Your task to perform on an android device: Go to settings Image 0: 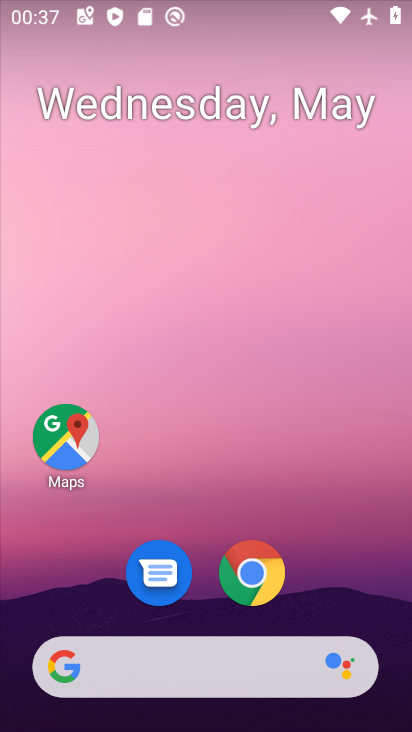
Step 0: drag from (344, 567) to (306, 186)
Your task to perform on an android device: Go to settings Image 1: 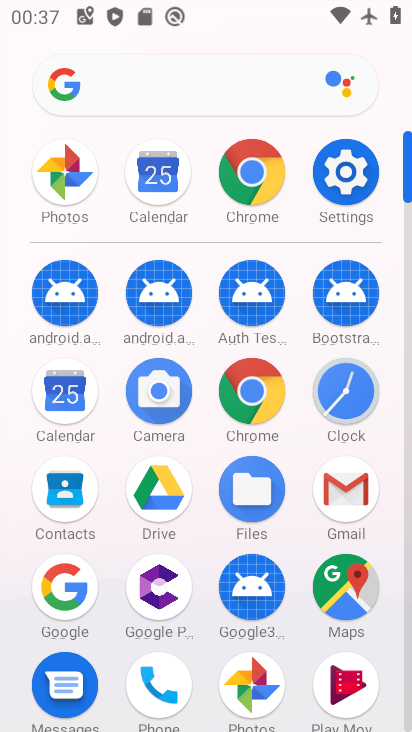
Step 1: click (343, 163)
Your task to perform on an android device: Go to settings Image 2: 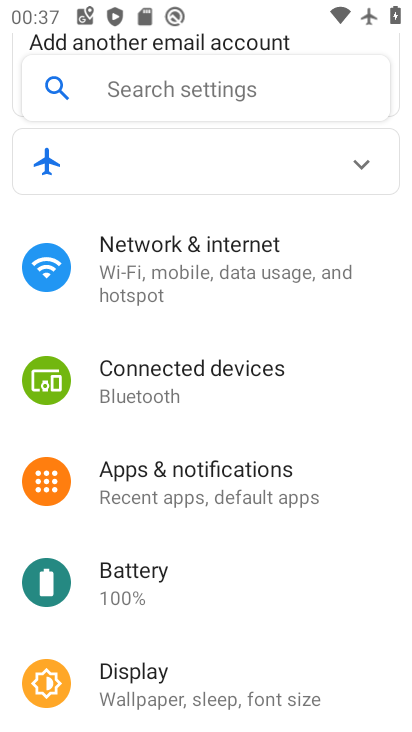
Step 2: task complete